Your task to perform on an android device: turn off picture-in-picture Image 0: 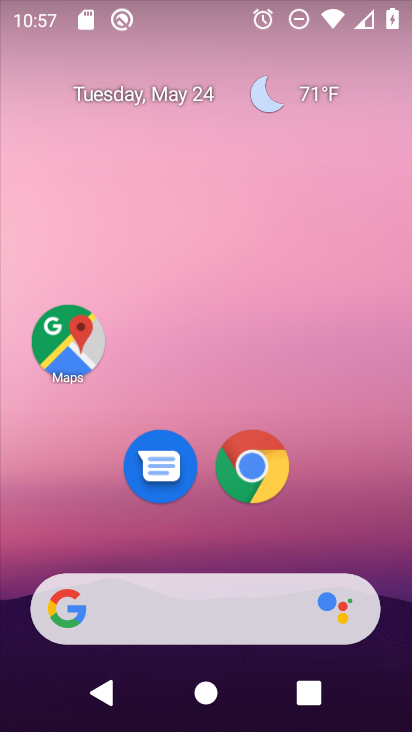
Step 0: drag from (224, 544) to (279, 83)
Your task to perform on an android device: turn off picture-in-picture Image 1: 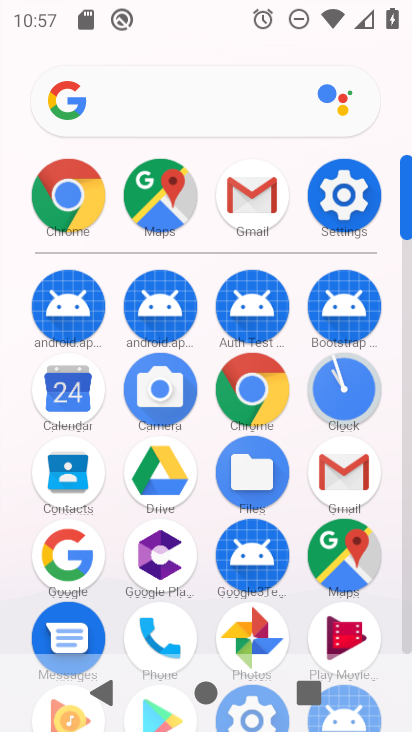
Step 1: click (85, 207)
Your task to perform on an android device: turn off picture-in-picture Image 2: 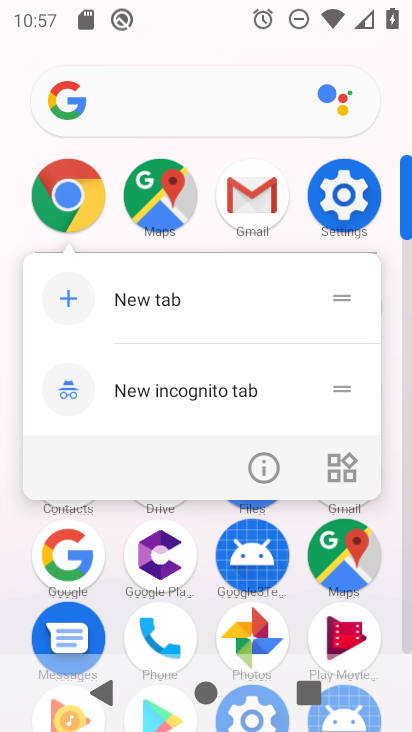
Step 2: click (271, 466)
Your task to perform on an android device: turn off picture-in-picture Image 3: 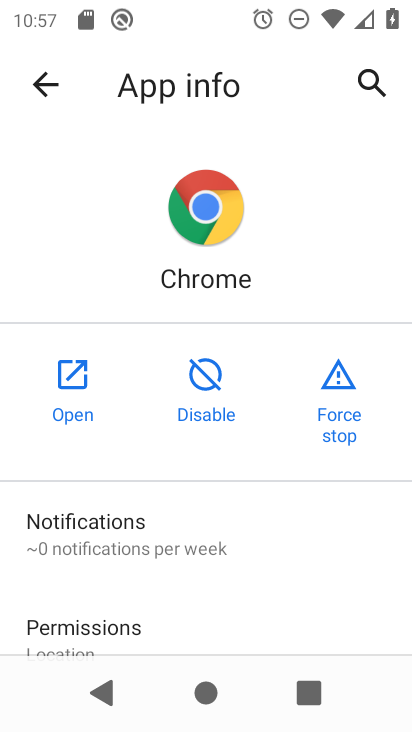
Step 3: drag from (196, 509) to (278, 203)
Your task to perform on an android device: turn off picture-in-picture Image 4: 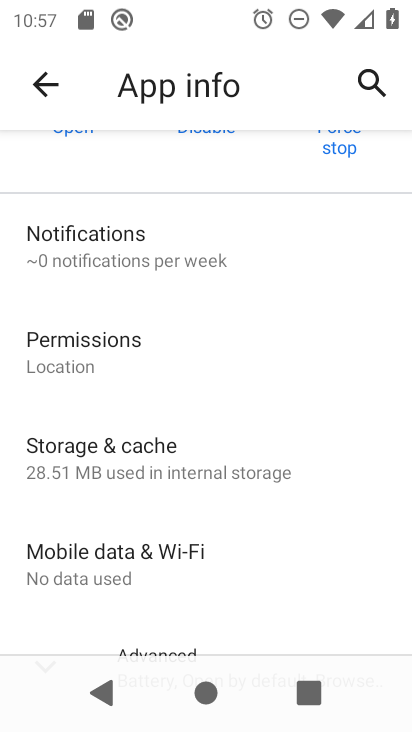
Step 4: drag from (245, 514) to (313, 236)
Your task to perform on an android device: turn off picture-in-picture Image 5: 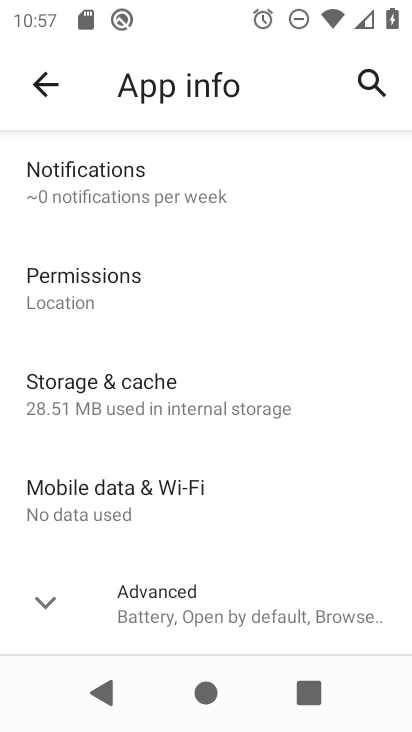
Step 5: click (177, 609)
Your task to perform on an android device: turn off picture-in-picture Image 6: 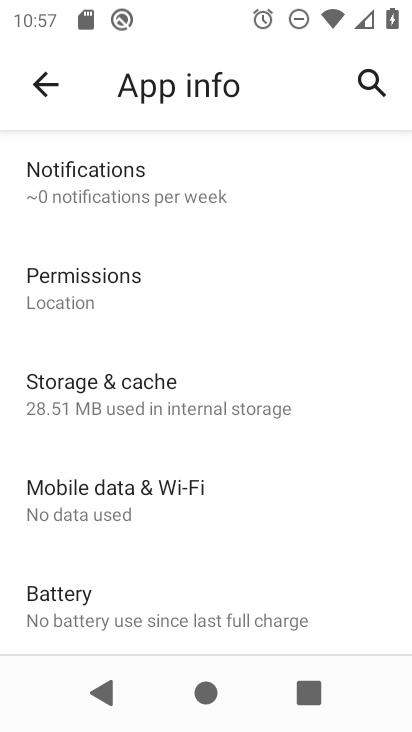
Step 6: drag from (203, 556) to (248, 278)
Your task to perform on an android device: turn off picture-in-picture Image 7: 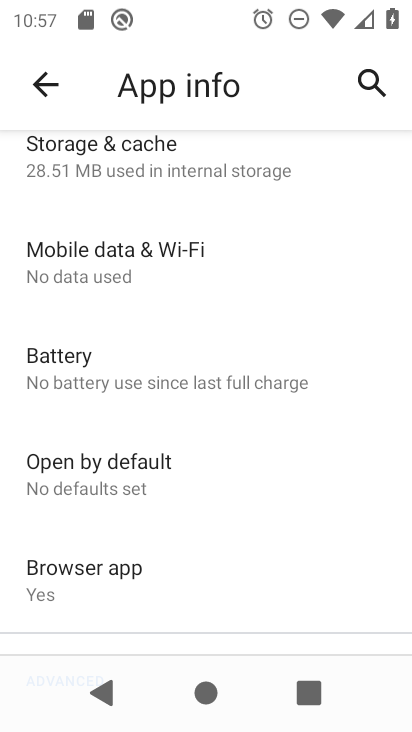
Step 7: drag from (165, 520) to (232, 232)
Your task to perform on an android device: turn off picture-in-picture Image 8: 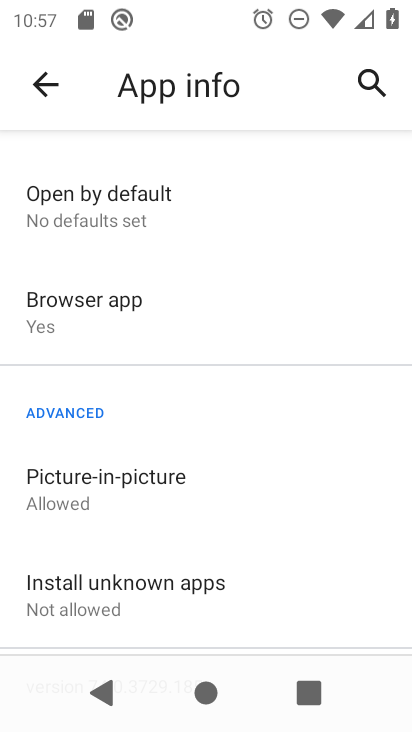
Step 8: click (167, 486)
Your task to perform on an android device: turn off picture-in-picture Image 9: 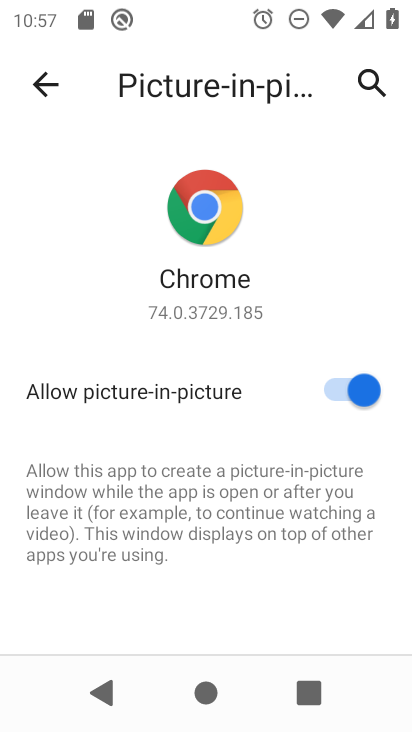
Step 9: click (325, 392)
Your task to perform on an android device: turn off picture-in-picture Image 10: 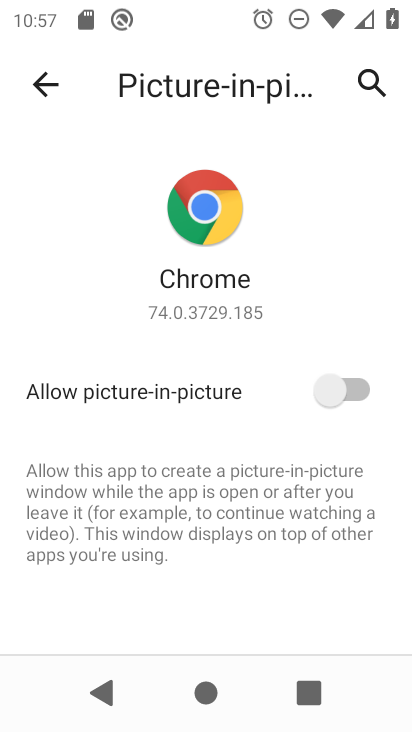
Step 10: task complete